Your task to perform on an android device: Show me productivity apps on the Play Store Image 0: 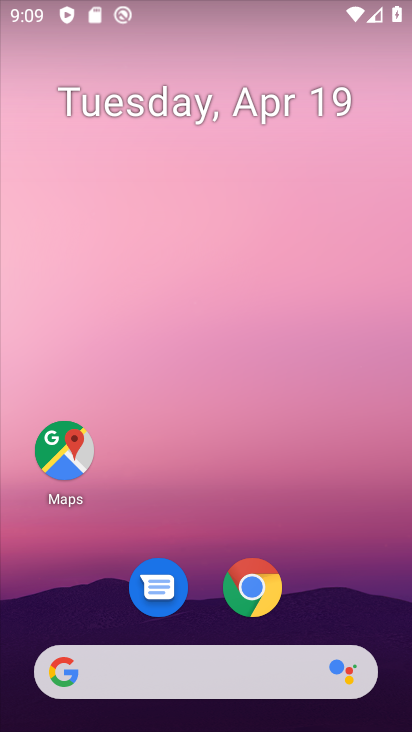
Step 0: drag from (320, 606) to (319, 112)
Your task to perform on an android device: Show me productivity apps on the Play Store Image 1: 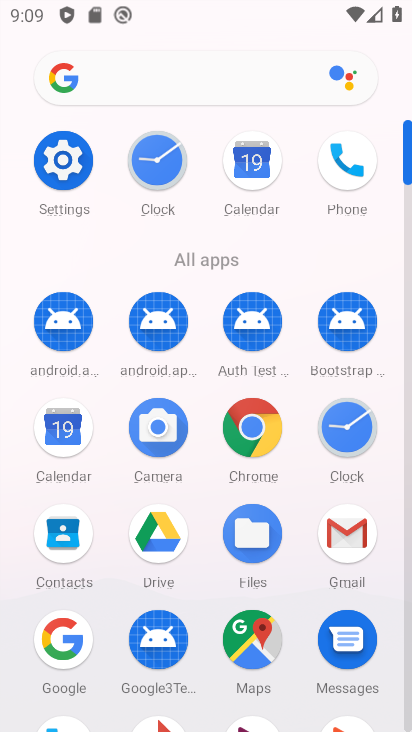
Step 1: drag from (296, 682) to (333, 184)
Your task to perform on an android device: Show me productivity apps on the Play Store Image 2: 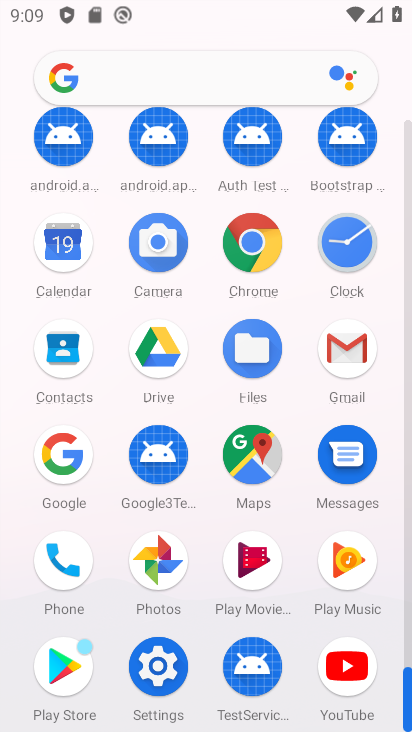
Step 2: click (72, 680)
Your task to perform on an android device: Show me productivity apps on the Play Store Image 3: 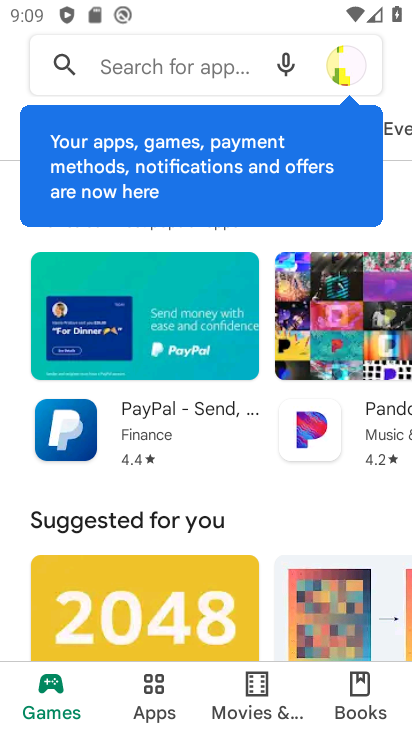
Step 3: click (150, 688)
Your task to perform on an android device: Show me productivity apps on the Play Store Image 4: 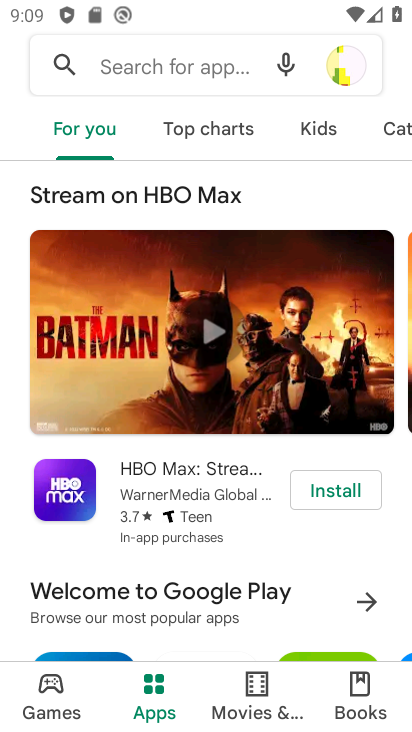
Step 4: drag from (391, 133) to (102, 151)
Your task to perform on an android device: Show me productivity apps on the Play Store Image 5: 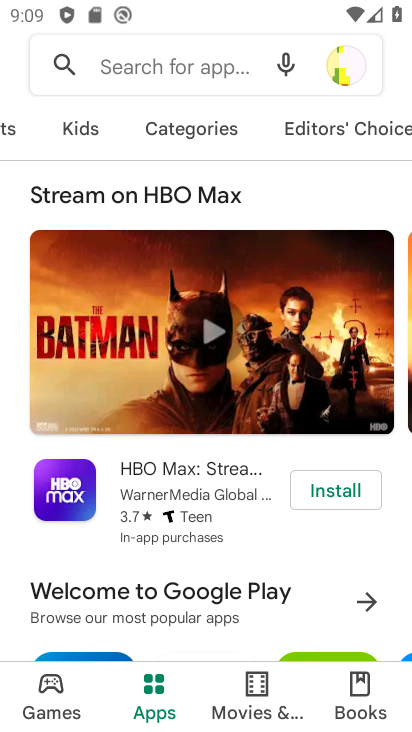
Step 5: click (196, 126)
Your task to perform on an android device: Show me productivity apps on the Play Store Image 6: 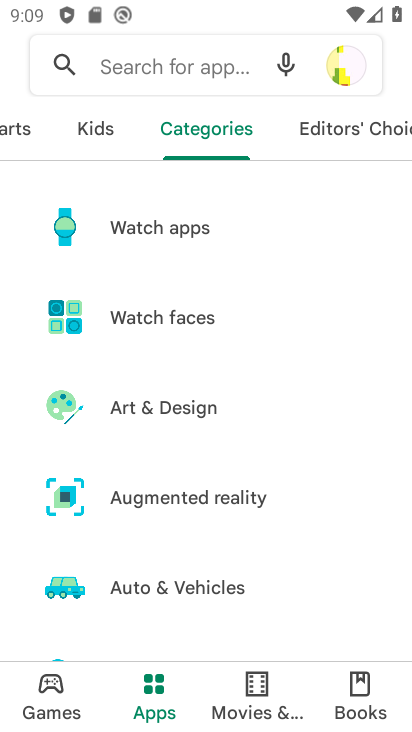
Step 6: drag from (239, 511) to (261, 174)
Your task to perform on an android device: Show me productivity apps on the Play Store Image 7: 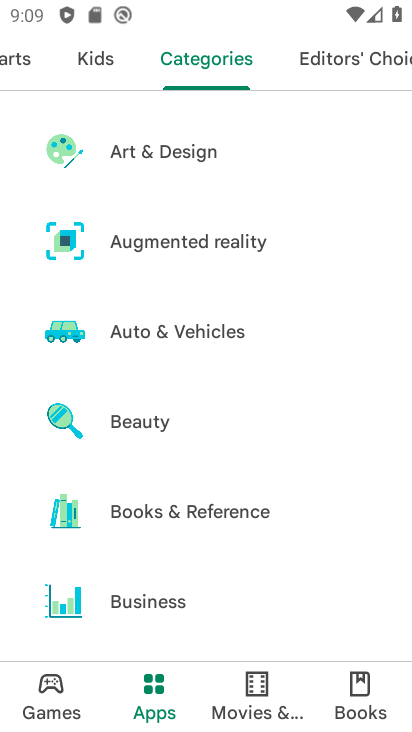
Step 7: drag from (202, 619) to (218, 245)
Your task to perform on an android device: Show me productivity apps on the Play Store Image 8: 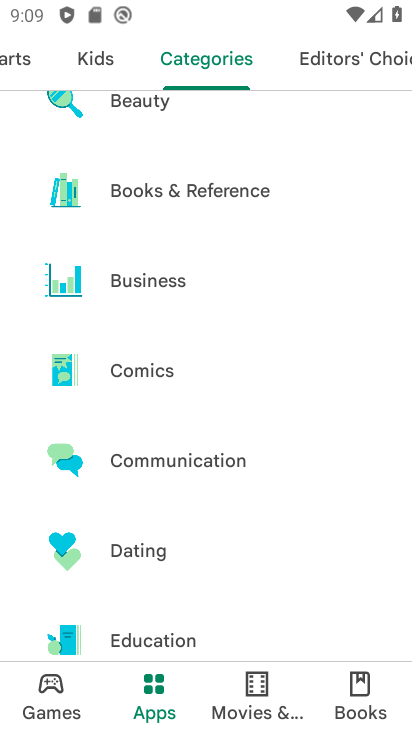
Step 8: drag from (209, 603) to (247, 237)
Your task to perform on an android device: Show me productivity apps on the Play Store Image 9: 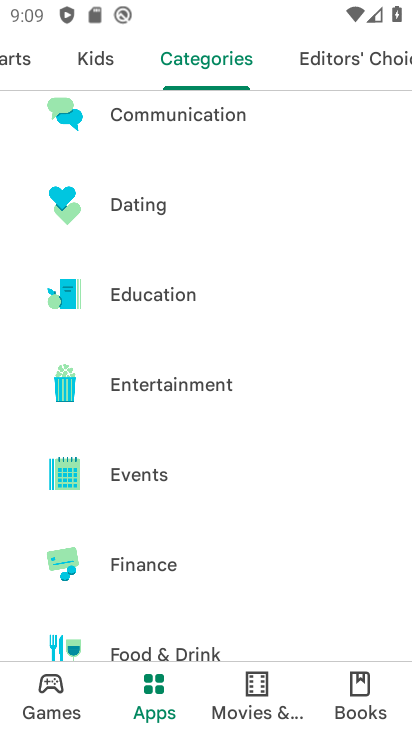
Step 9: drag from (205, 622) to (245, 298)
Your task to perform on an android device: Show me productivity apps on the Play Store Image 10: 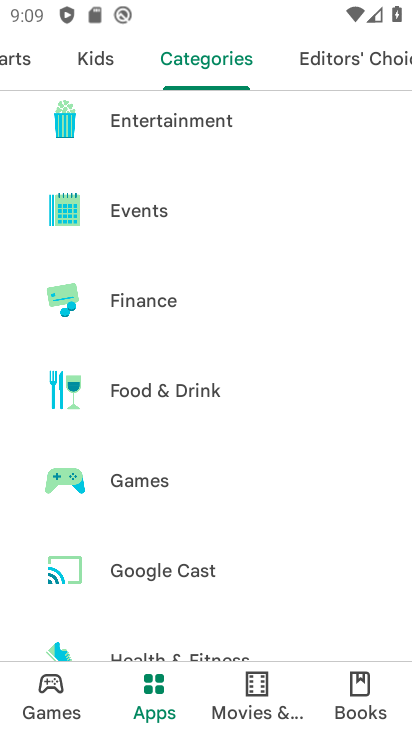
Step 10: drag from (230, 622) to (234, 246)
Your task to perform on an android device: Show me productivity apps on the Play Store Image 11: 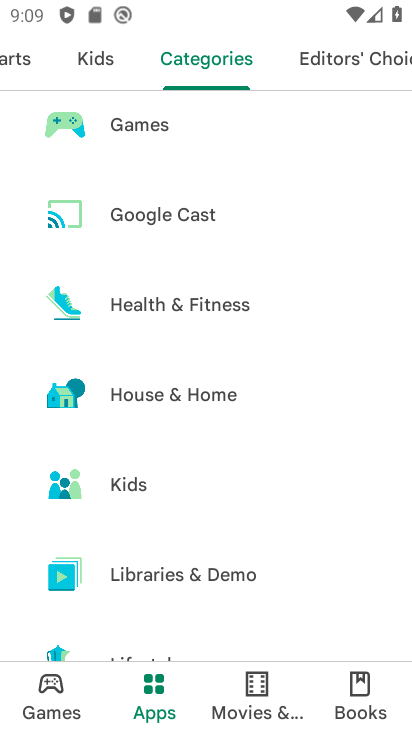
Step 11: drag from (289, 563) to (318, 245)
Your task to perform on an android device: Show me productivity apps on the Play Store Image 12: 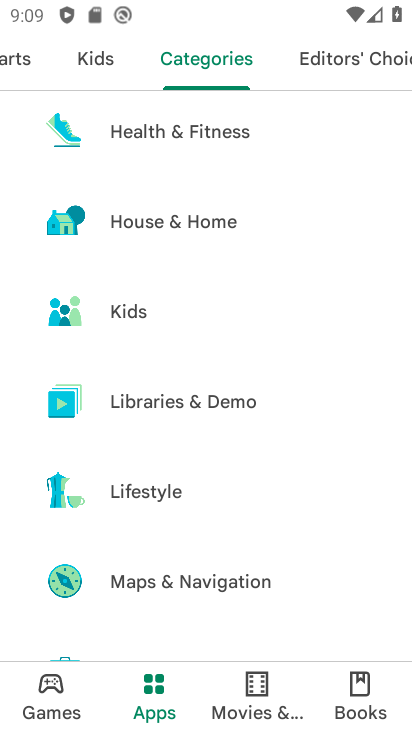
Step 12: drag from (247, 629) to (294, 264)
Your task to perform on an android device: Show me productivity apps on the Play Store Image 13: 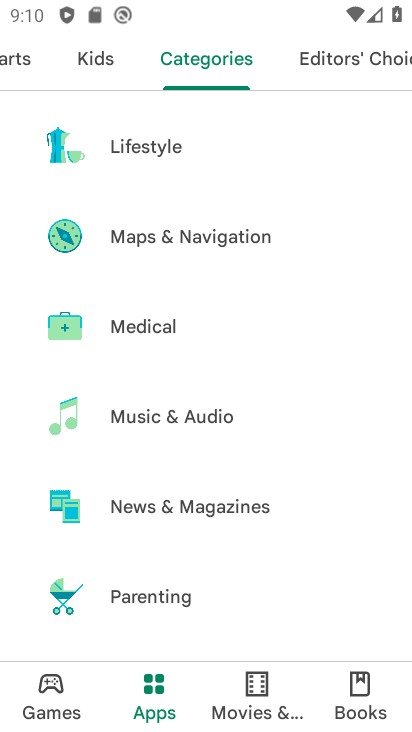
Step 13: drag from (275, 573) to (285, 231)
Your task to perform on an android device: Show me productivity apps on the Play Store Image 14: 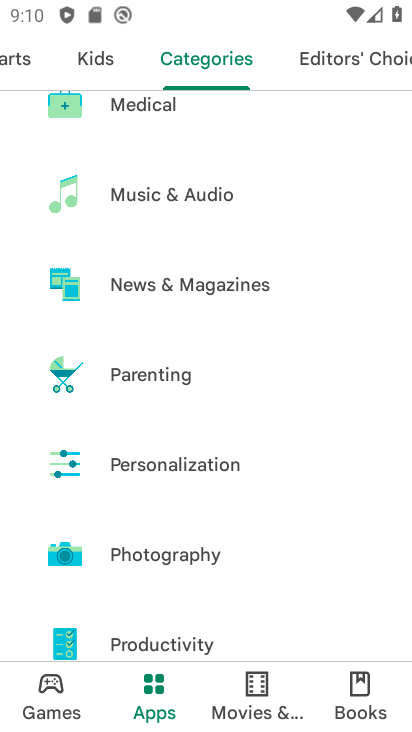
Step 14: click (177, 647)
Your task to perform on an android device: Show me productivity apps on the Play Store Image 15: 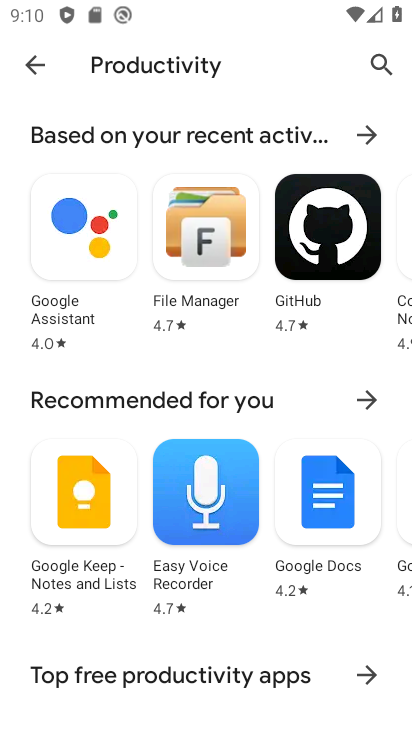
Step 15: task complete